Your task to perform on an android device: toggle airplane mode Image 0: 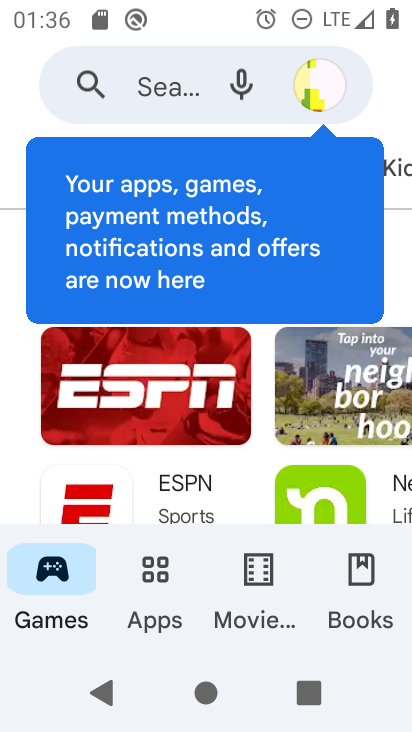
Step 0: press home button
Your task to perform on an android device: toggle airplane mode Image 1: 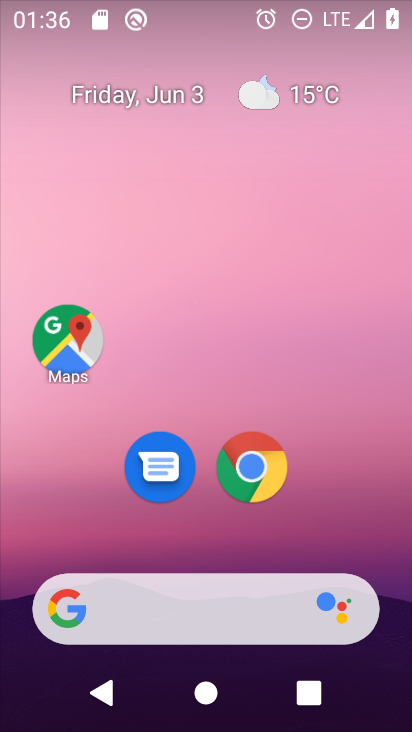
Step 1: drag from (409, 635) to (360, 74)
Your task to perform on an android device: toggle airplane mode Image 2: 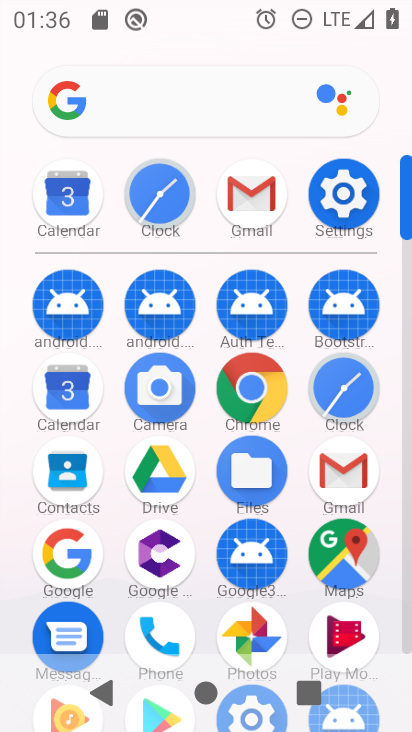
Step 2: click (406, 626)
Your task to perform on an android device: toggle airplane mode Image 3: 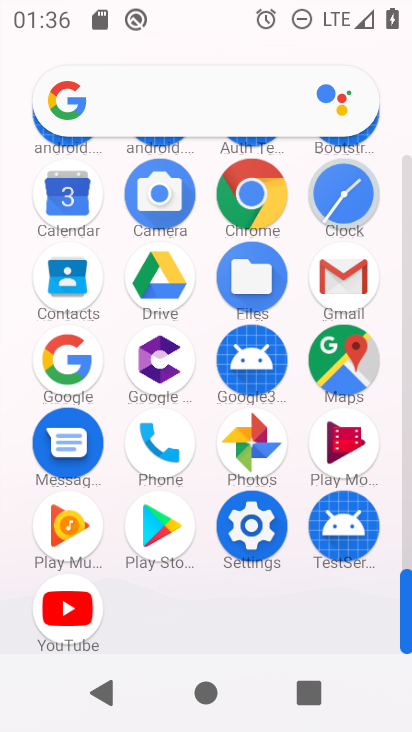
Step 3: click (253, 527)
Your task to perform on an android device: toggle airplane mode Image 4: 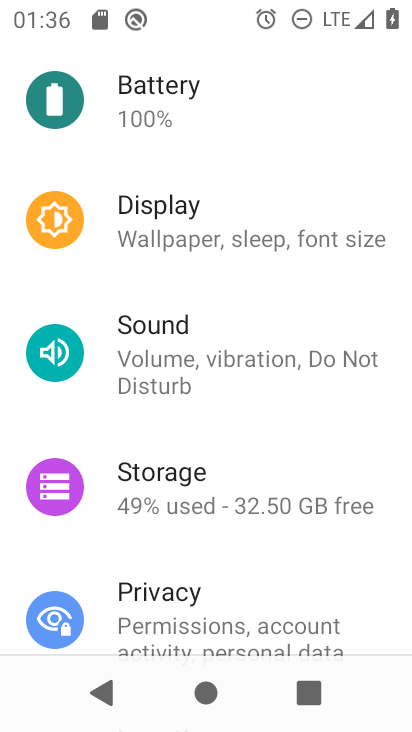
Step 4: drag from (329, 167) to (355, 498)
Your task to perform on an android device: toggle airplane mode Image 5: 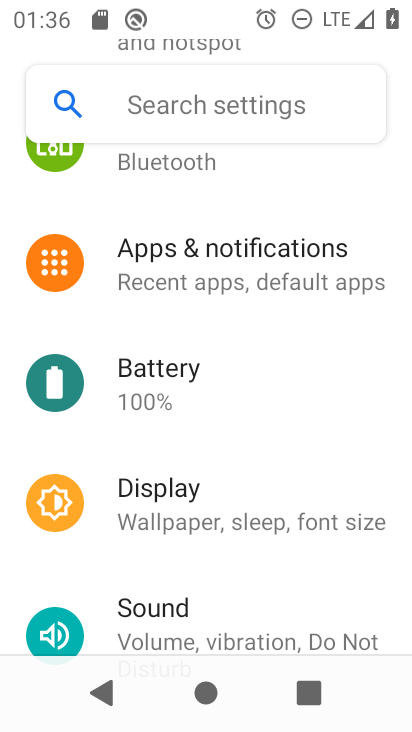
Step 5: drag from (398, 192) to (384, 462)
Your task to perform on an android device: toggle airplane mode Image 6: 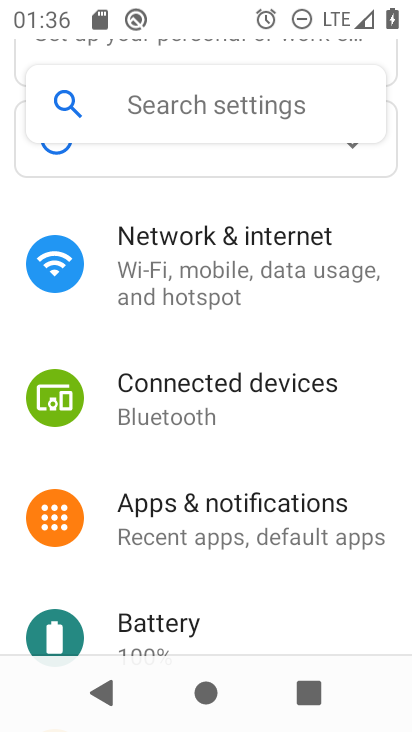
Step 6: click (182, 270)
Your task to perform on an android device: toggle airplane mode Image 7: 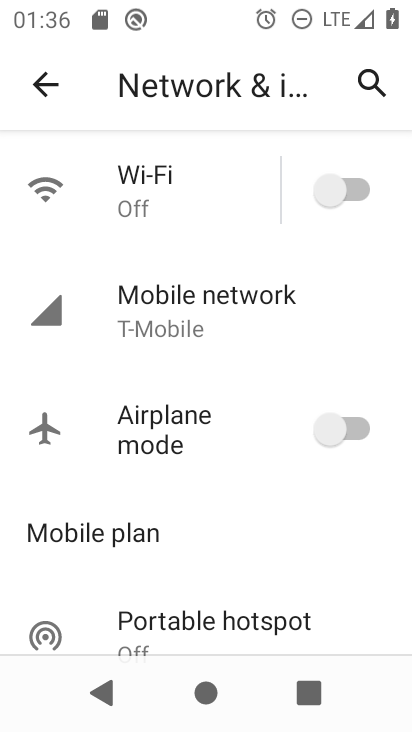
Step 7: click (350, 431)
Your task to perform on an android device: toggle airplane mode Image 8: 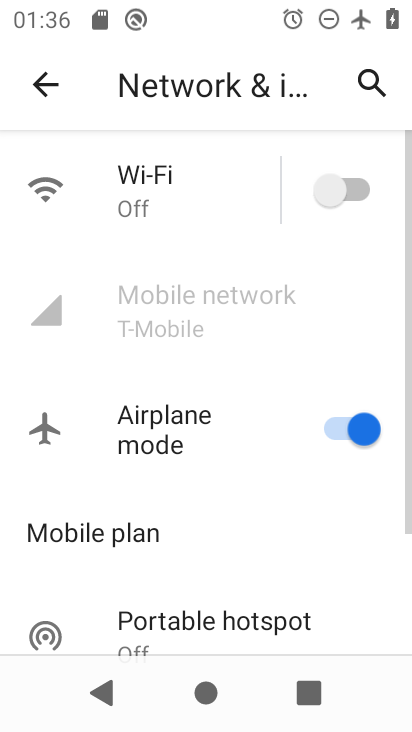
Step 8: task complete